Your task to perform on an android device: turn on priority inbox in the gmail app Image 0: 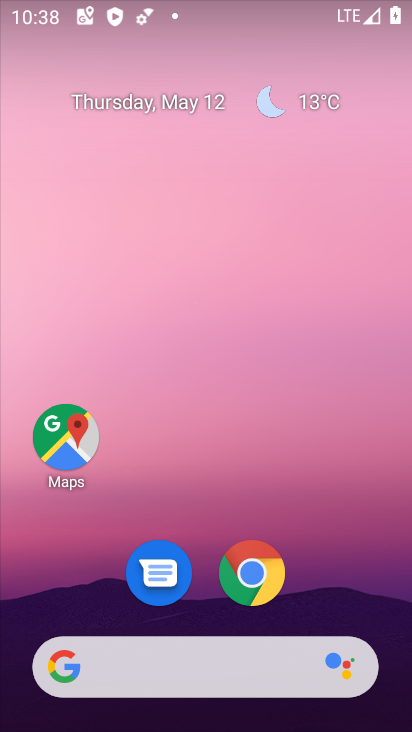
Step 0: drag from (210, 613) to (157, 14)
Your task to perform on an android device: turn on priority inbox in the gmail app Image 1: 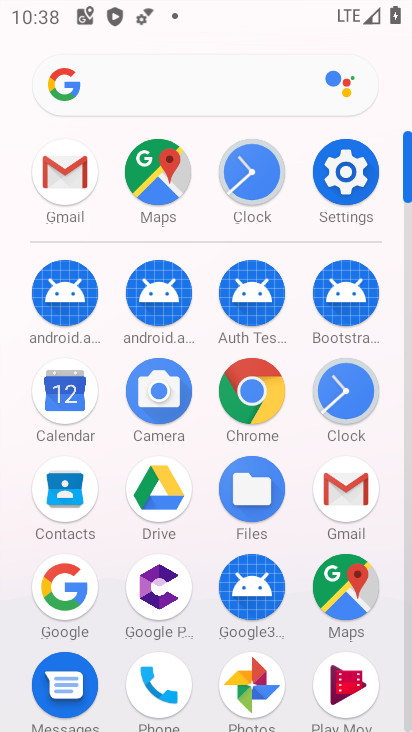
Step 1: click (348, 494)
Your task to perform on an android device: turn on priority inbox in the gmail app Image 2: 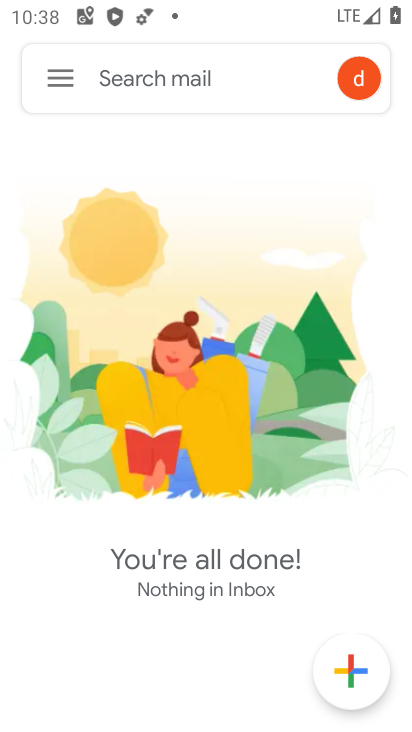
Step 2: click (62, 92)
Your task to perform on an android device: turn on priority inbox in the gmail app Image 3: 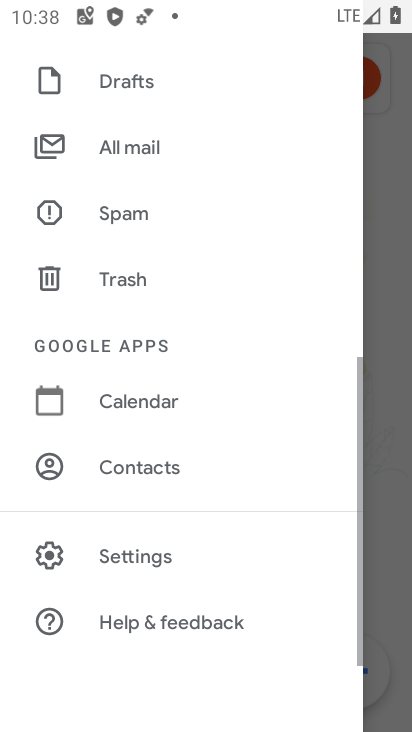
Step 3: click (112, 546)
Your task to perform on an android device: turn on priority inbox in the gmail app Image 4: 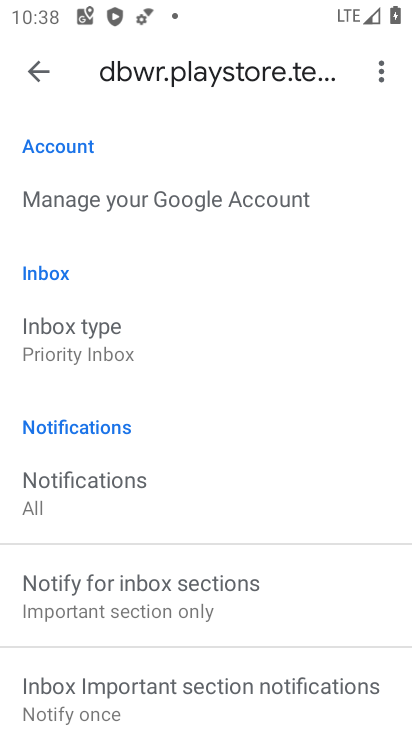
Step 4: task complete